Your task to perform on an android device: Play the new Bruno Mars video on YouTube Image 0: 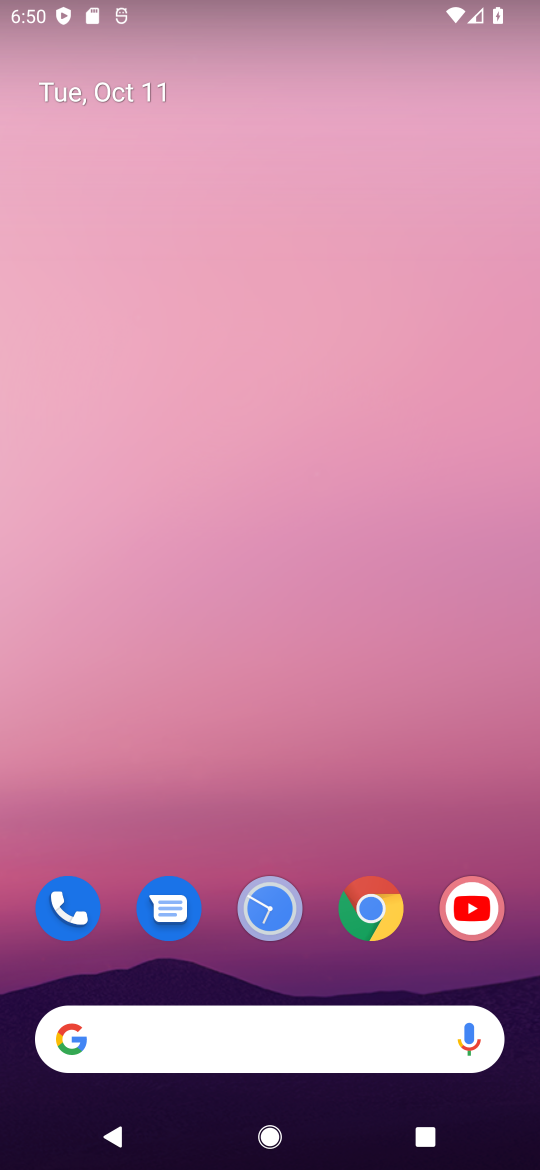
Step 0: click (469, 905)
Your task to perform on an android device: Play the new Bruno Mars video on YouTube Image 1: 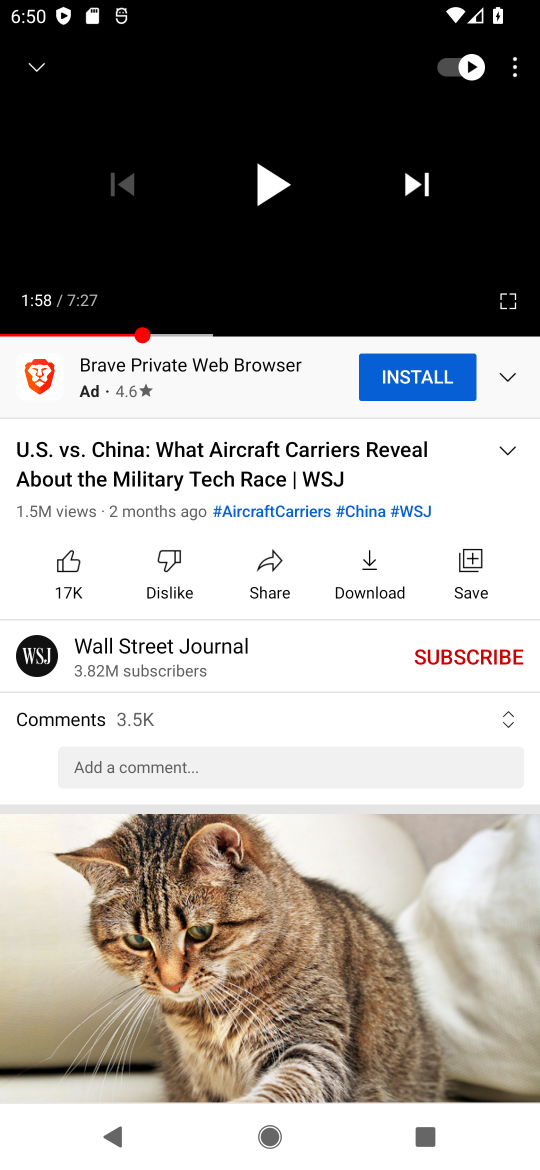
Step 1: click (39, 55)
Your task to perform on an android device: Play the new Bruno Mars video on YouTube Image 2: 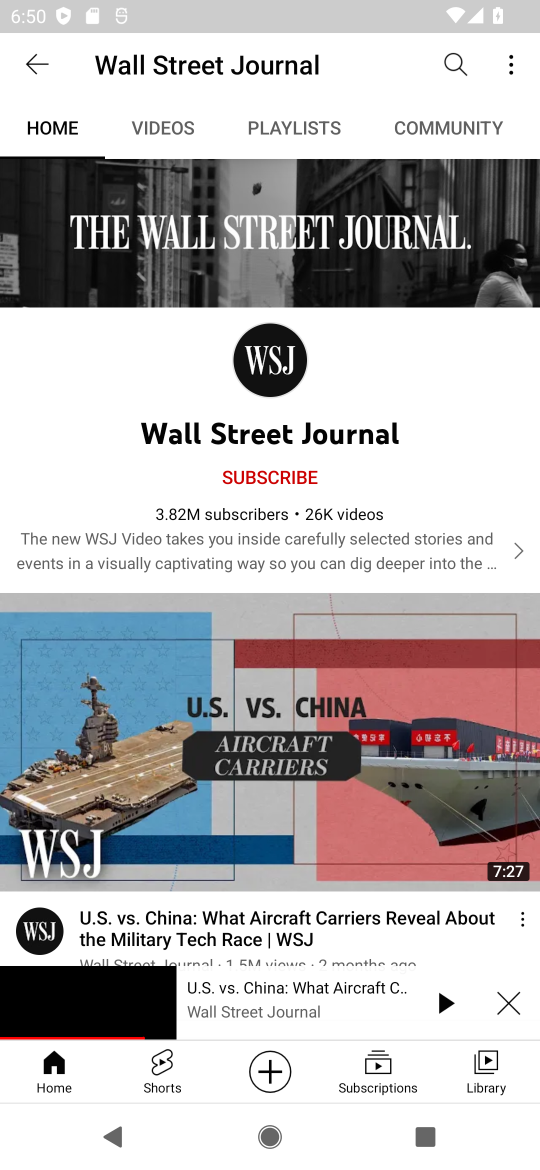
Step 2: click (498, 1001)
Your task to perform on an android device: Play the new Bruno Mars video on YouTube Image 3: 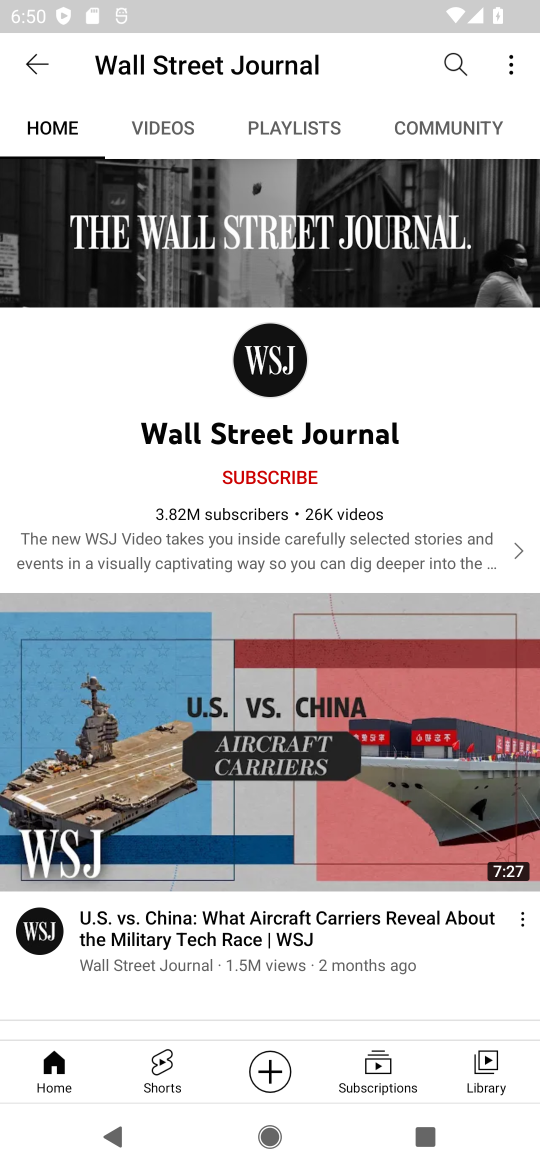
Step 3: click (36, 71)
Your task to perform on an android device: Play the new Bruno Mars video on YouTube Image 4: 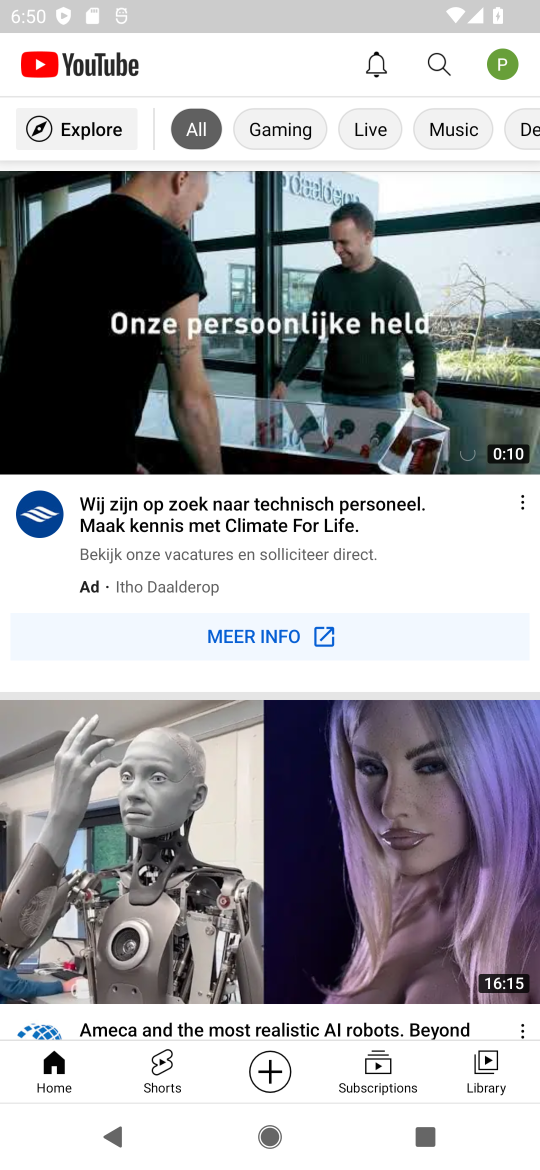
Step 4: click (439, 56)
Your task to perform on an android device: Play the new Bruno Mars video on YouTube Image 5: 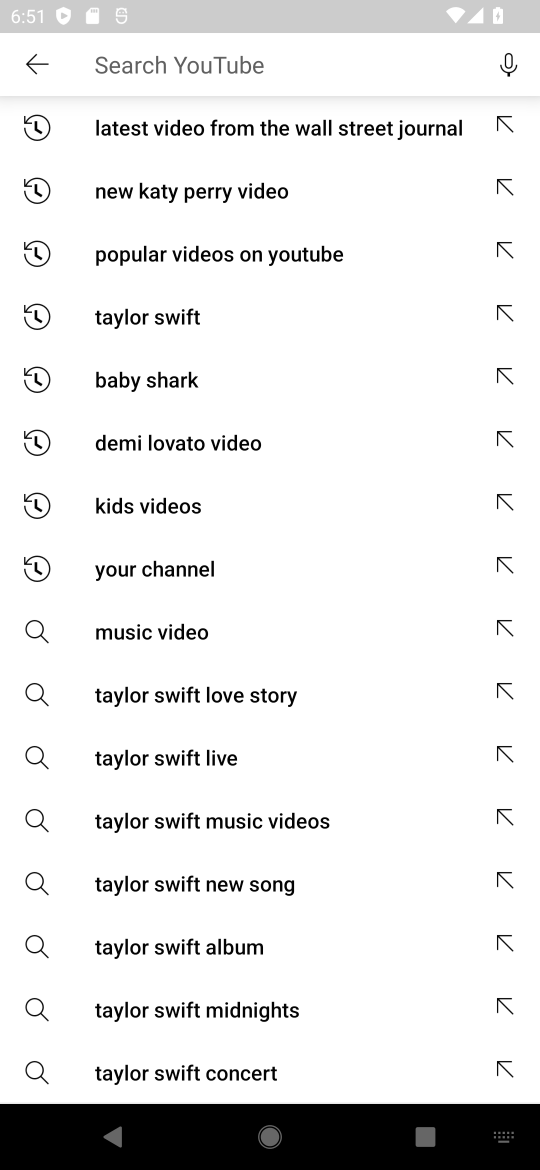
Step 5: type "new Bruno Mars video"
Your task to perform on an android device: Play the new Bruno Mars video on YouTube Image 6: 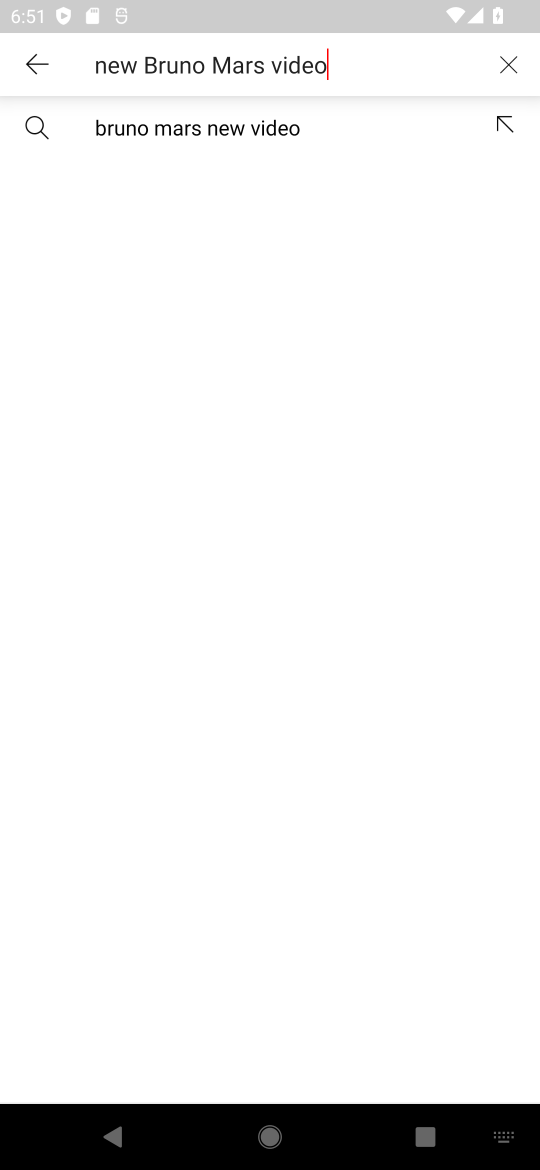
Step 6: click (224, 128)
Your task to perform on an android device: Play the new Bruno Mars video on YouTube Image 7: 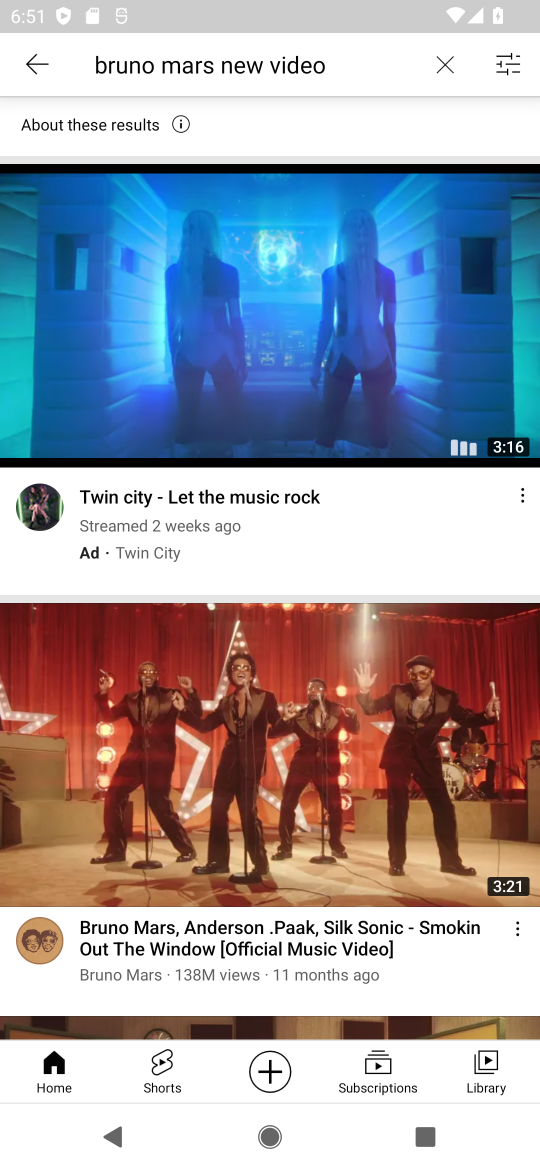
Step 7: click (259, 392)
Your task to perform on an android device: Play the new Bruno Mars video on YouTube Image 8: 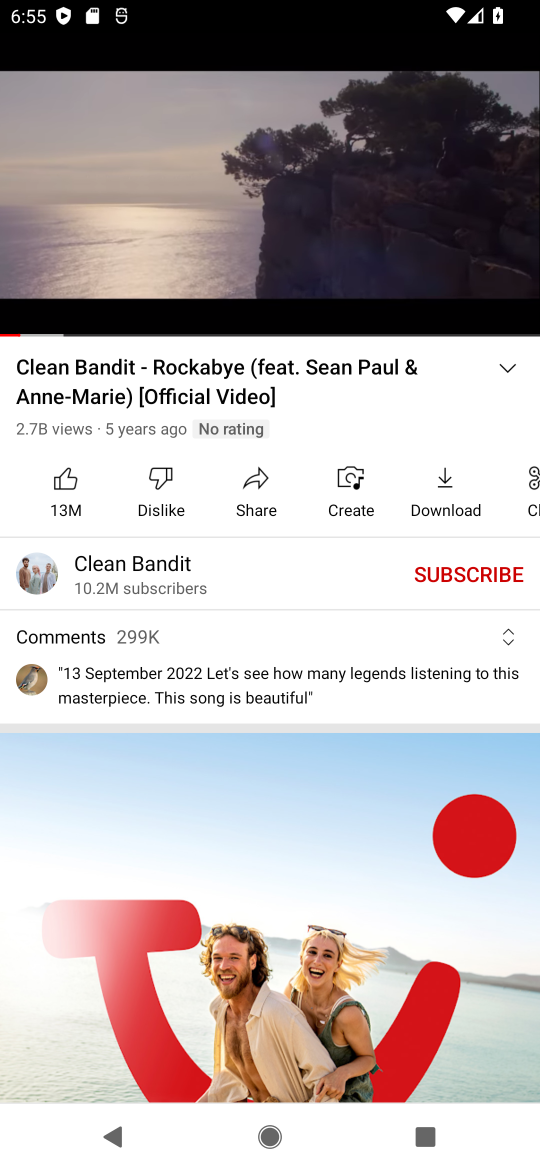
Step 8: task complete